Your task to perform on an android device: remove spam from my inbox in the gmail app Image 0: 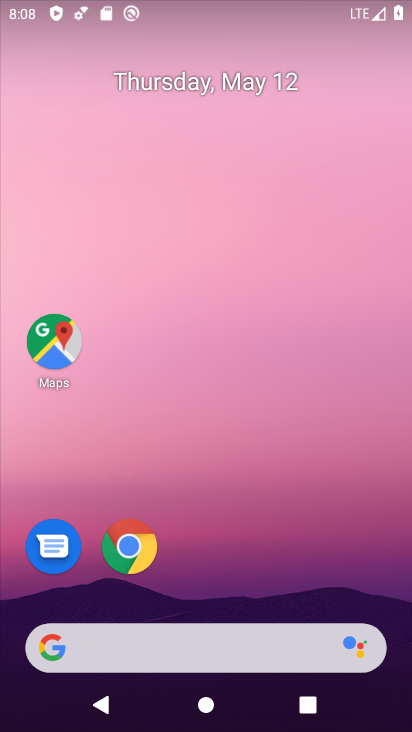
Step 0: drag from (216, 521) to (250, 58)
Your task to perform on an android device: remove spam from my inbox in the gmail app Image 1: 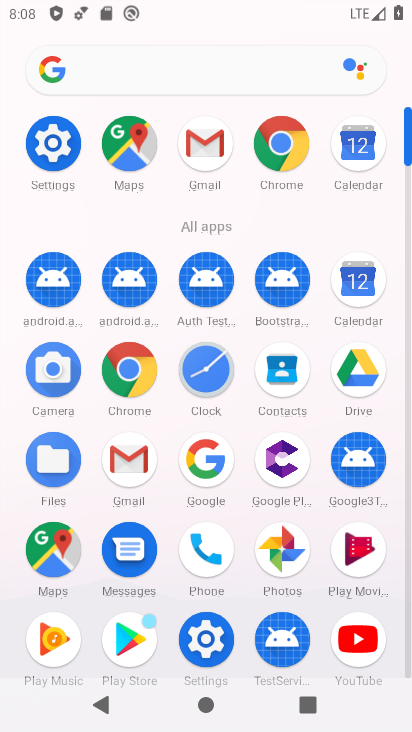
Step 1: click (198, 133)
Your task to perform on an android device: remove spam from my inbox in the gmail app Image 2: 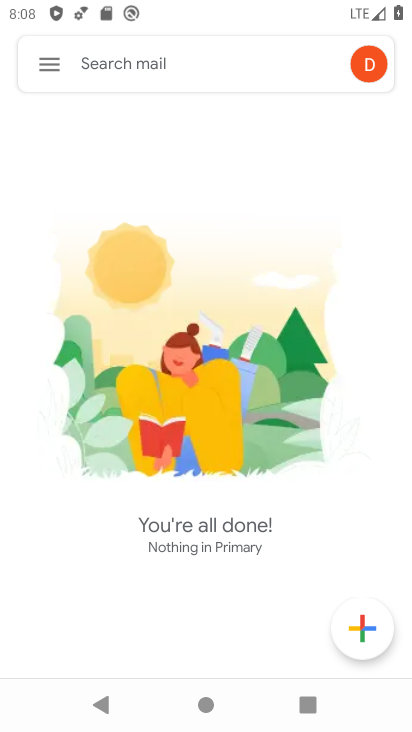
Step 2: click (41, 66)
Your task to perform on an android device: remove spam from my inbox in the gmail app Image 3: 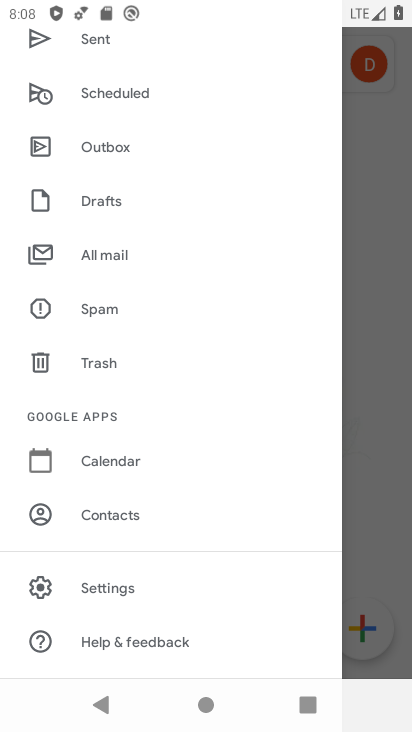
Step 3: click (113, 313)
Your task to perform on an android device: remove spam from my inbox in the gmail app Image 4: 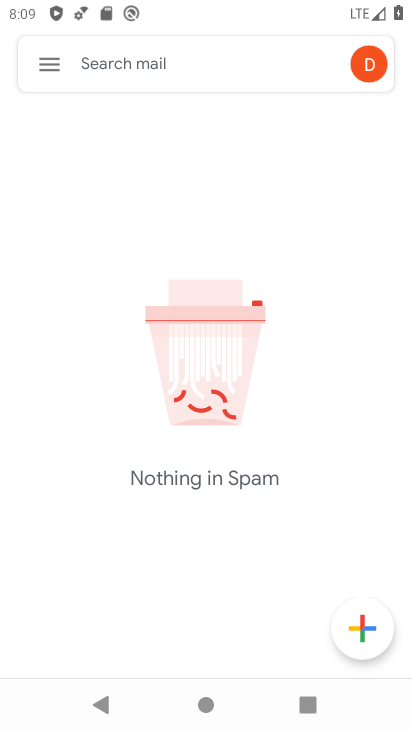
Step 4: task complete